Your task to perform on an android device: Open the Play Movies app and select the watchlist tab. Image 0: 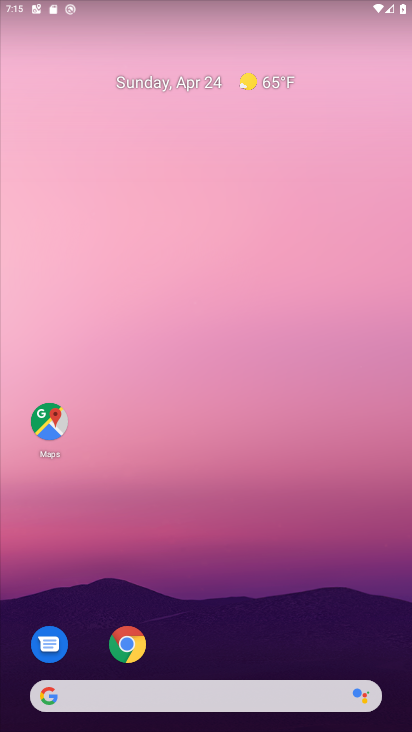
Step 0: click (202, 60)
Your task to perform on an android device: Open the Play Movies app and select the watchlist tab. Image 1: 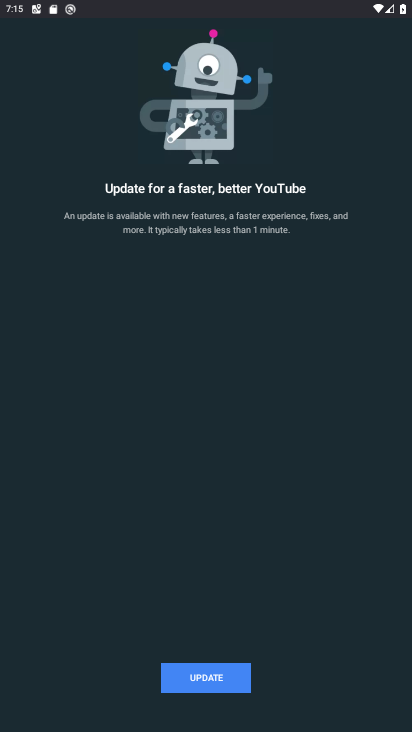
Step 1: press home button
Your task to perform on an android device: Open the Play Movies app and select the watchlist tab. Image 2: 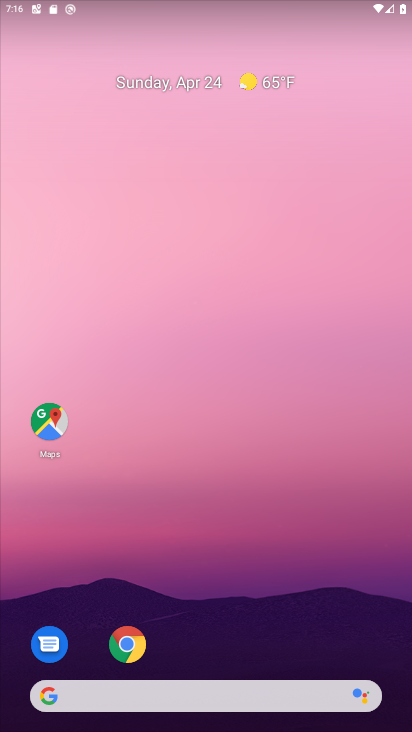
Step 2: drag from (213, 658) to (209, 9)
Your task to perform on an android device: Open the Play Movies app and select the watchlist tab. Image 3: 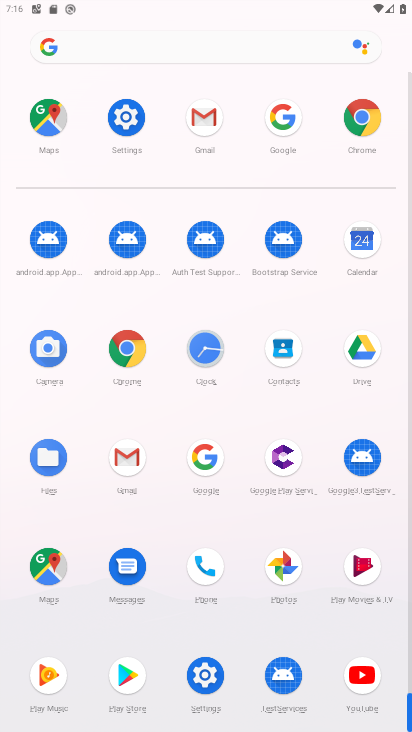
Step 3: click (360, 557)
Your task to perform on an android device: Open the Play Movies app and select the watchlist tab. Image 4: 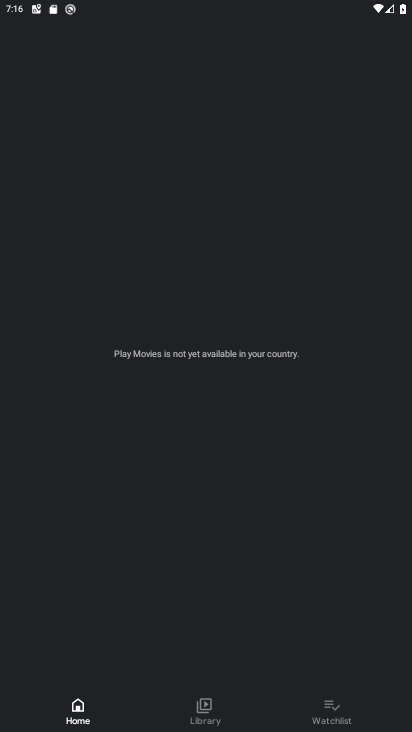
Step 4: click (337, 704)
Your task to perform on an android device: Open the Play Movies app and select the watchlist tab. Image 5: 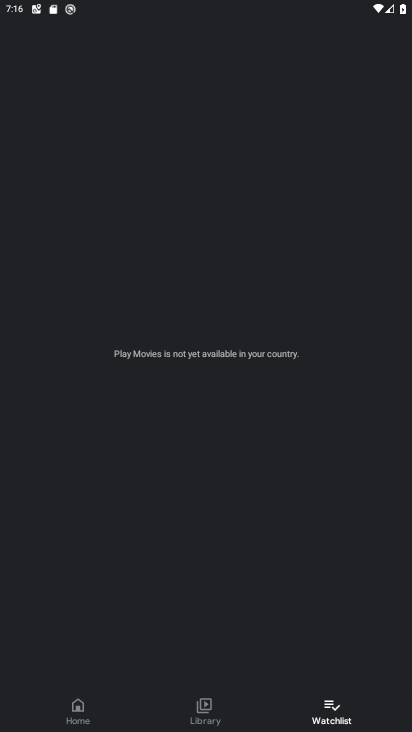
Step 5: task complete